Your task to perform on an android device: turn off location Image 0: 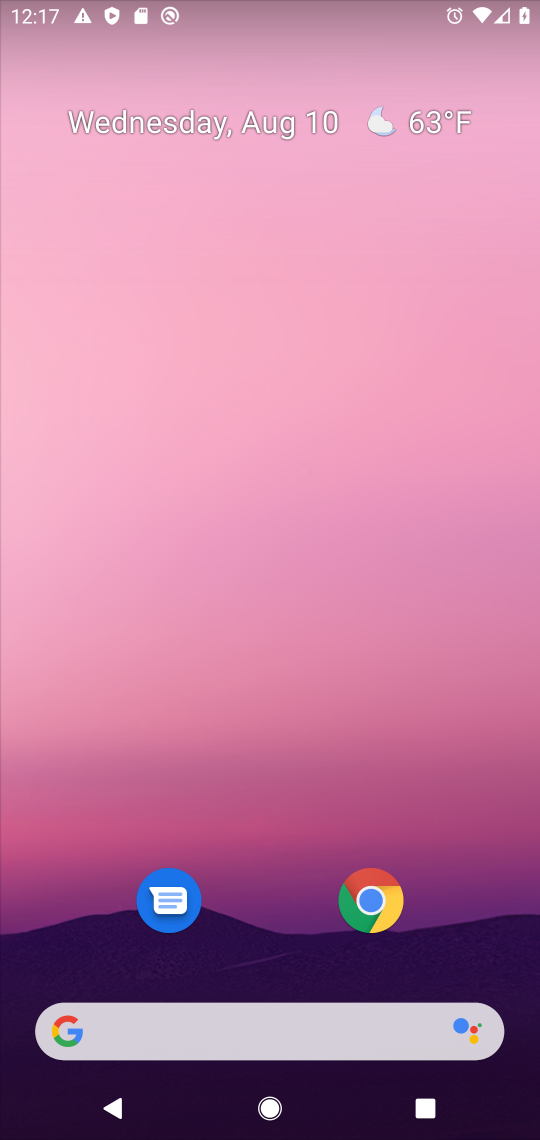
Step 0: drag from (302, 855) to (274, 11)
Your task to perform on an android device: turn off location Image 1: 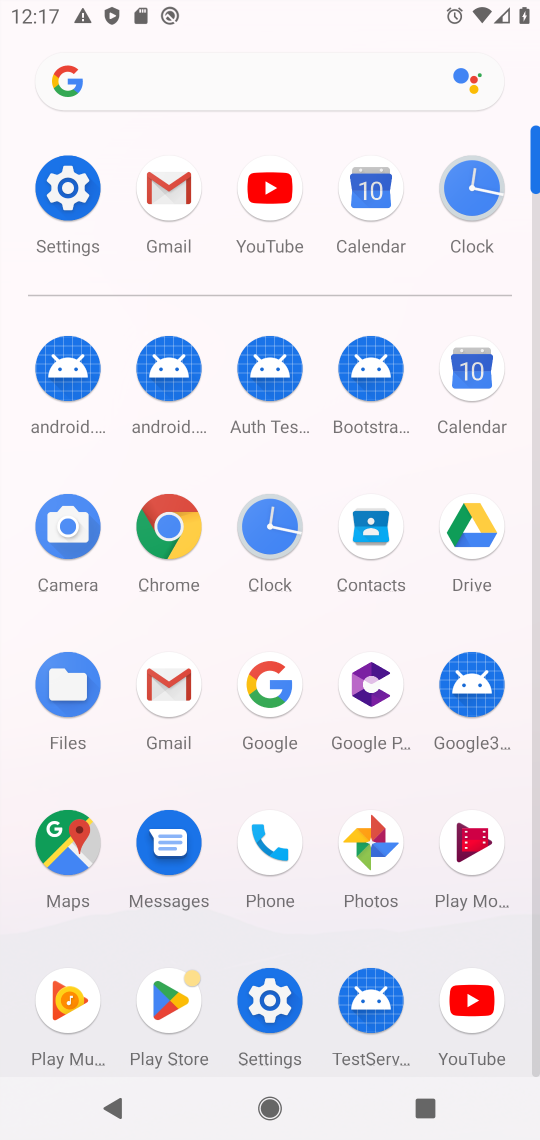
Step 1: click (68, 191)
Your task to perform on an android device: turn off location Image 2: 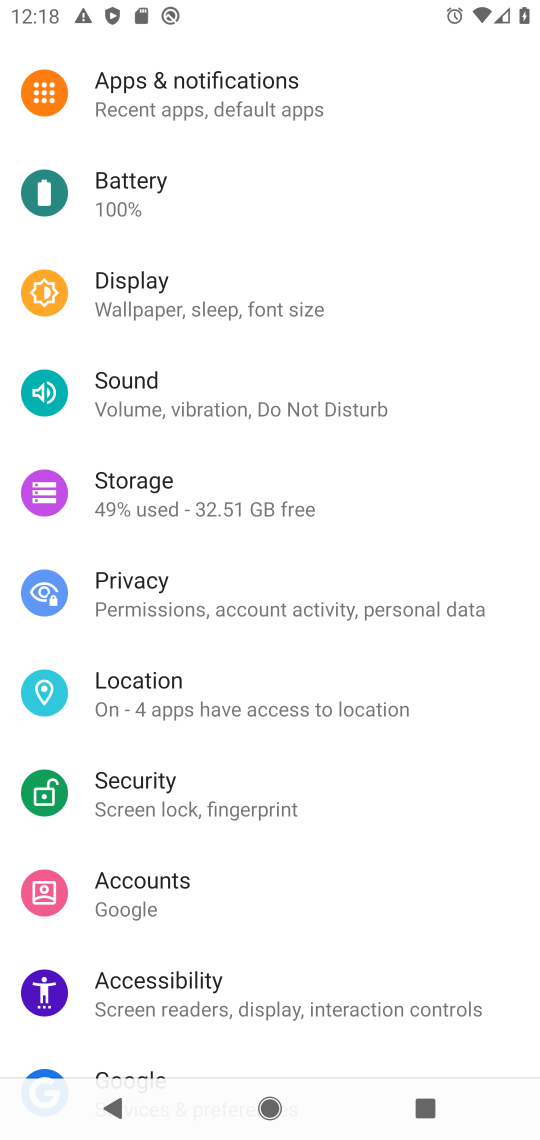
Step 2: click (248, 696)
Your task to perform on an android device: turn off location Image 3: 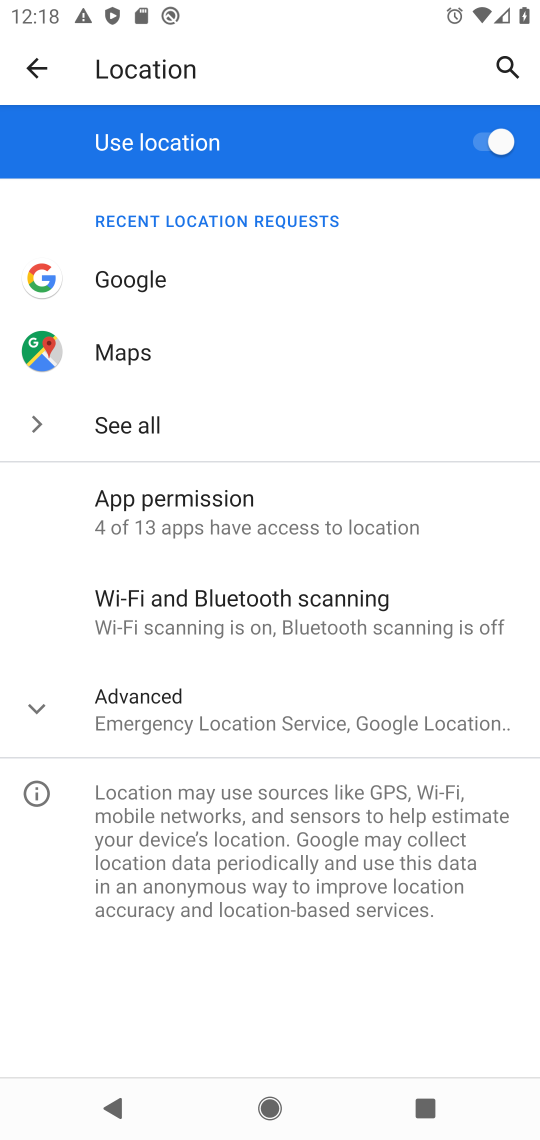
Step 3: click (486, 142)
Your task to perform on an android device: turn off location Image 4: 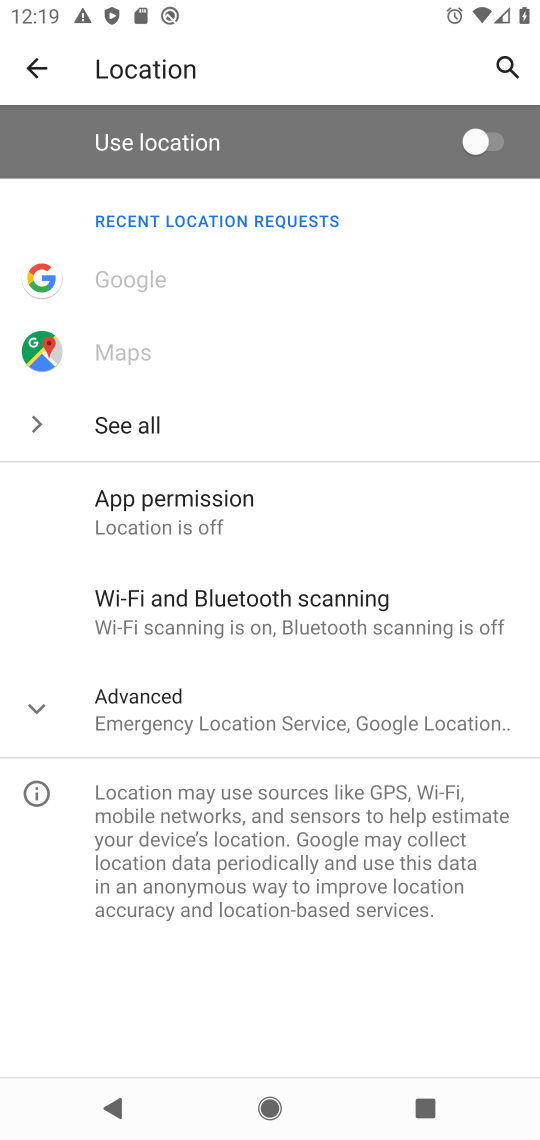
Step 4: task complete